Your task to perform on an android device: move an email to a new category in the gmail app Image 0: 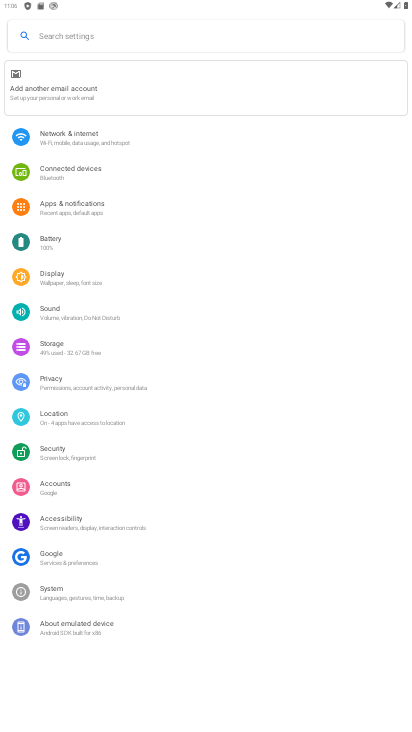
Step 0: press home button
Your task to perform on an android device: move an email to a new category in the gmail app Image 1: 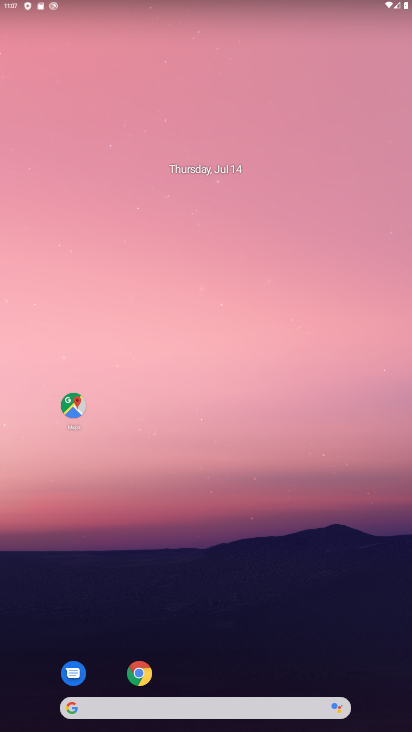
Step 1: drag from (300, 668) to (242, 49)
Your task to perform on an android device: move an email to a new category in the gmail app Image 2: 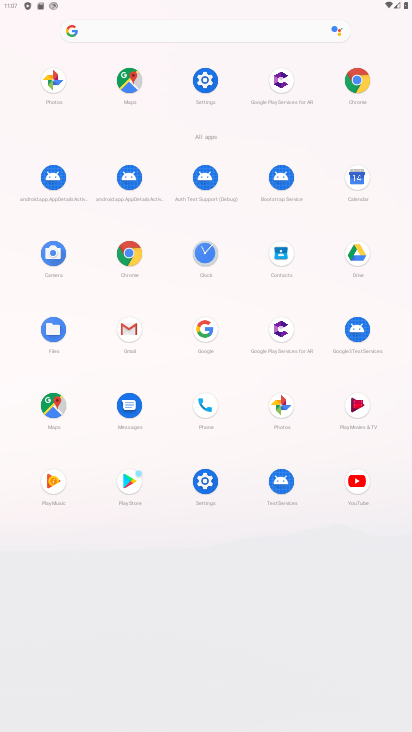
Step 2: click (128, 323)
Your task to perform on an android device: move an email to a new category in the gmail app Image 3: 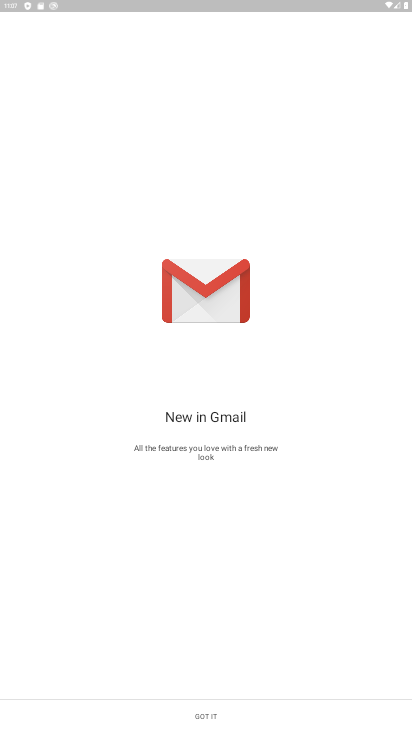
Step 3: click (203, 708)
Your task to perform on an android device: move an email to a new category in the gmail app Image 4: 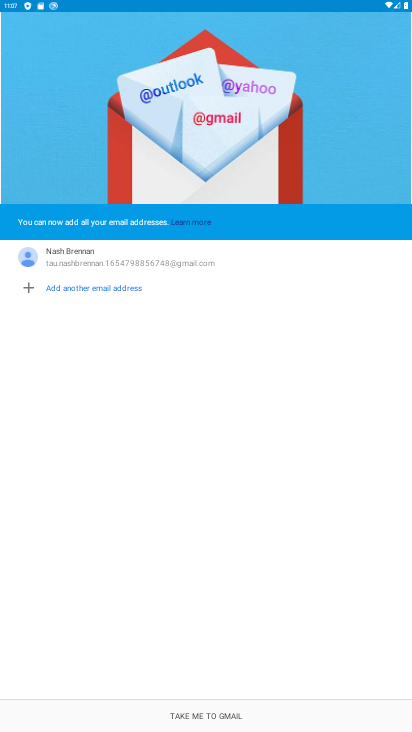
Step 4: click (228, 715)
Your task to perform on an android device: move an email to a new category in the gmail app Image 5: 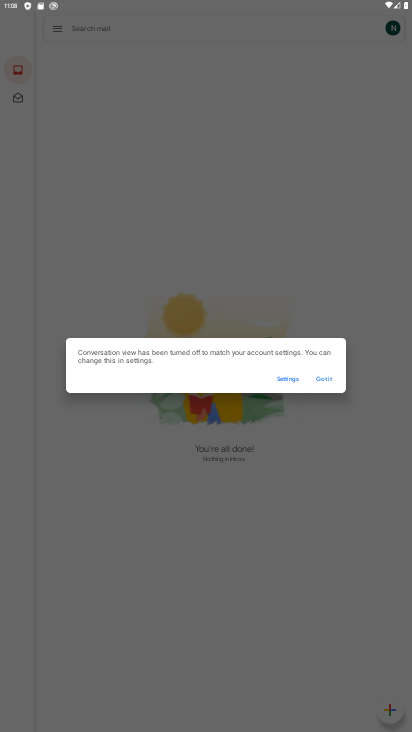
Step 5: click (343, 455)
Your task to perform on an android device: move an email to a new category in the gmail app Image 6: 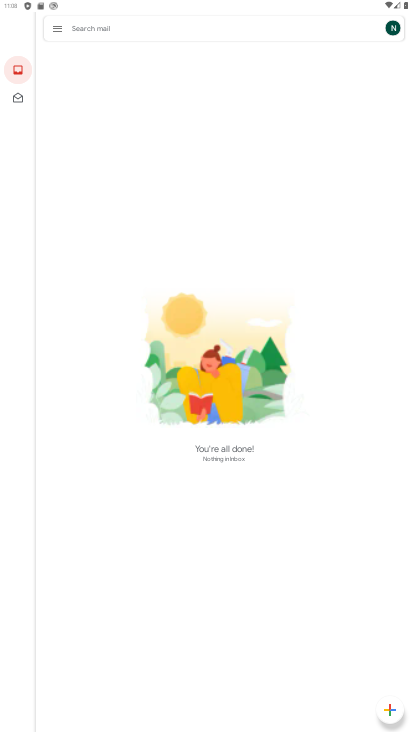
Step 6: click (54, 28)
Your task to perform on an android device: move an email to a new category in the gmail app Image 7: 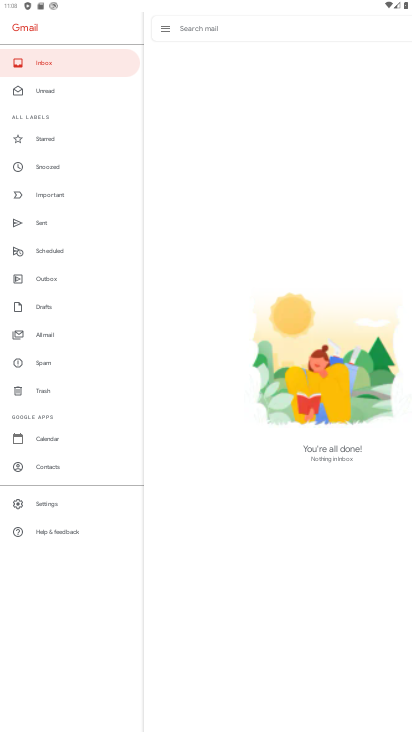
Step 7: click (59, 332)
Your task to perform on an android device: move an email to a new category in the gmail app Image 8: 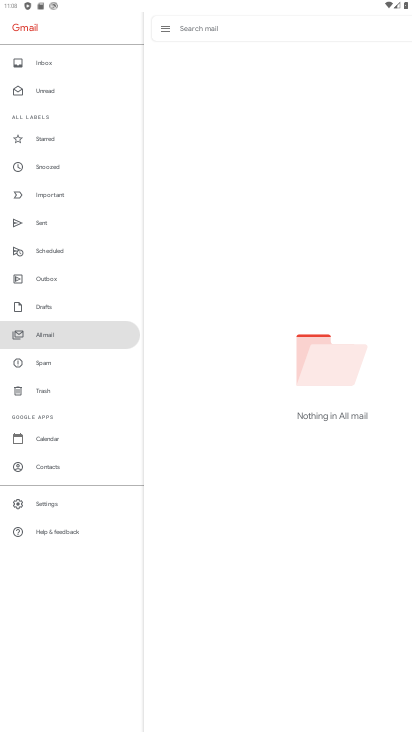
Step 8: click (327, 339)
Your task to perform on an android device: move an email to a new category in the gmail app Image 9: 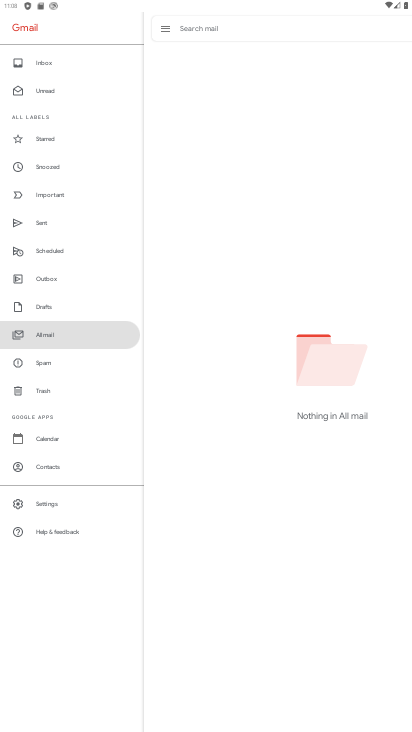
Step 9: task complete